Your task to perform on an android device: turn on bluetooth scan Image 0: 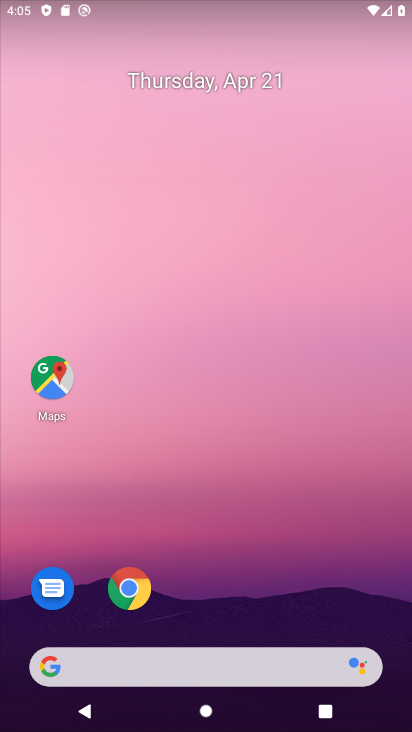
Step 0: drag from (287, 598) to (297, 209)
Your task to perform on an android device: turn on bluetooth scan Image 1: 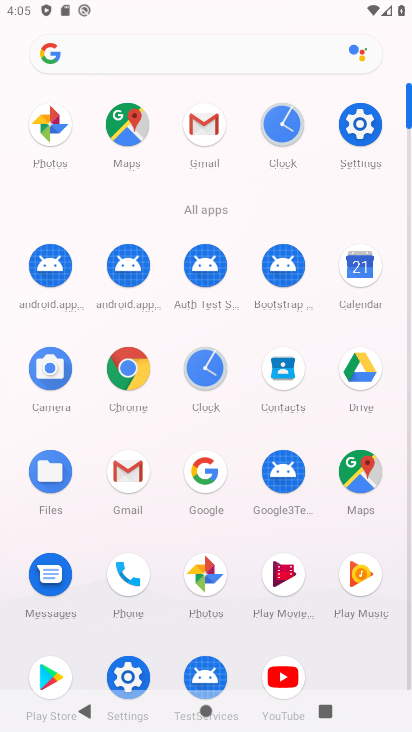
Step 1: click (367, 132)
Your task to perform on an android device: turn on bluetooth scan Image 2: 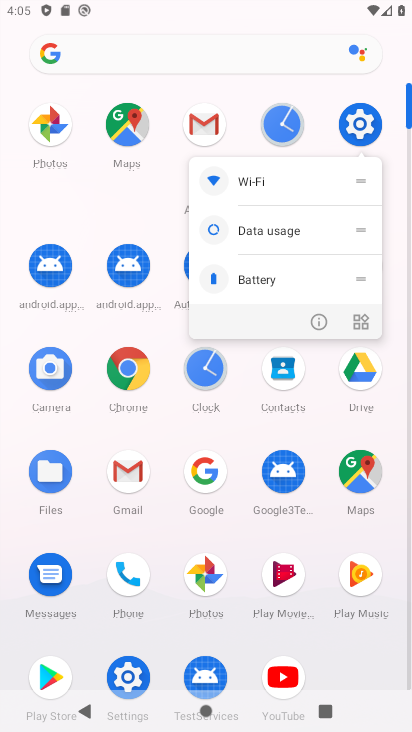
Step 2: click (361, 129)
Your task to perform on an android device: turn on bluetooth scan Image 3: 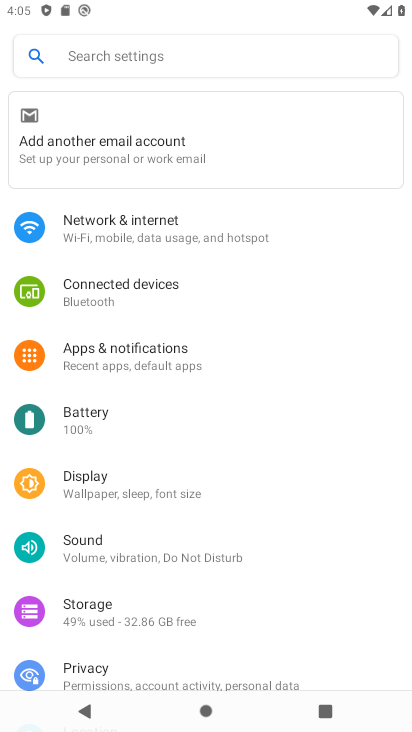
Step 3: drag from (156, 585) to (183, 320)
Your task to perform on an android device: turn on bluetooth scan Image 4: 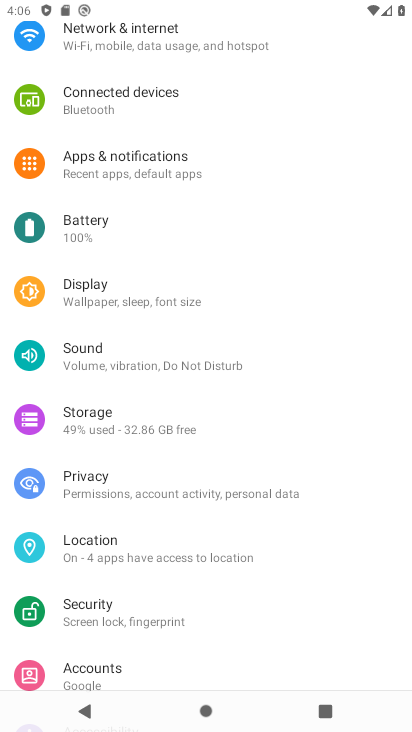
Step 4: click (127, 555)
Your task to perform on an android device: turn on bluetooth scan Image 5: 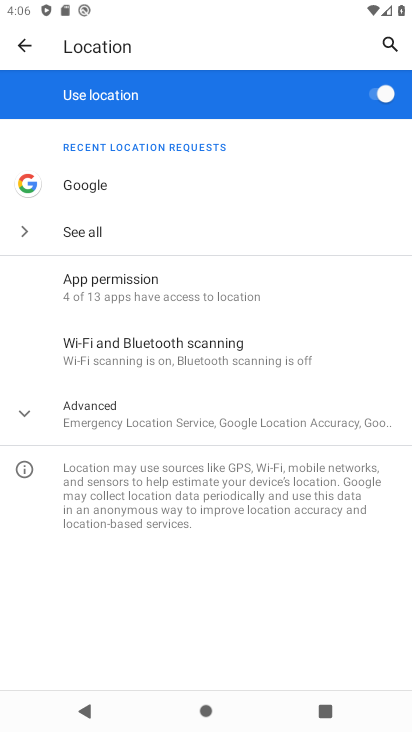
Step 5: click (171, 354)
Your task to perform on an android device: turn on bluetooth scan Image 6: 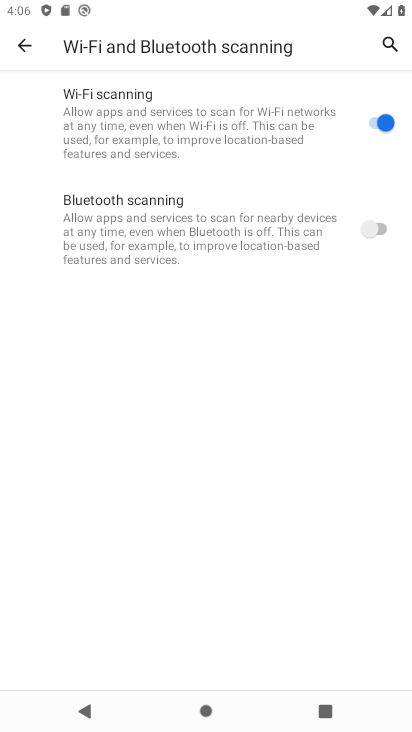
Step 6: click (377, 230)
Your task to perform on an android device: turn on bluetooth scan Image 7: 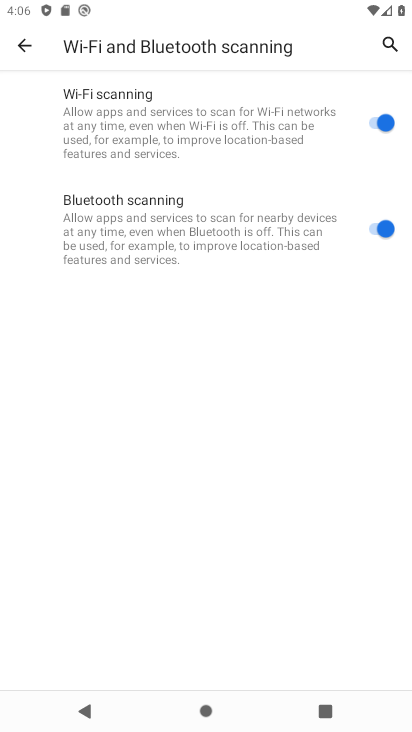
Step 7: task complete